Your task to perform on an android device: Open Chrome and go to the settings page Image 0: 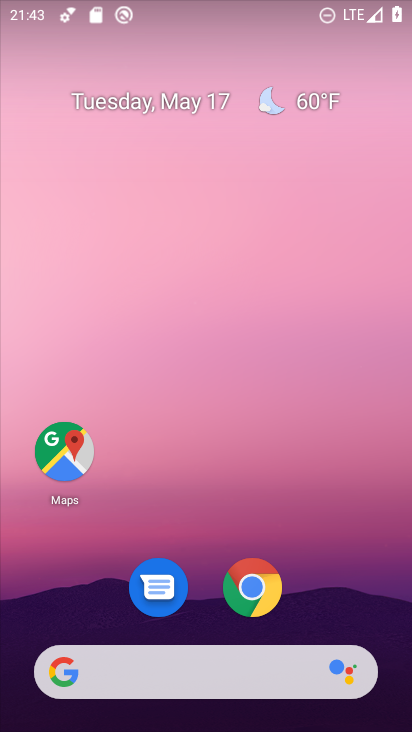
Step 0: drag from (246, 491) to (206, 122)
Your task to perform on an android device: Open Chrome and go to the settings page Image 1: 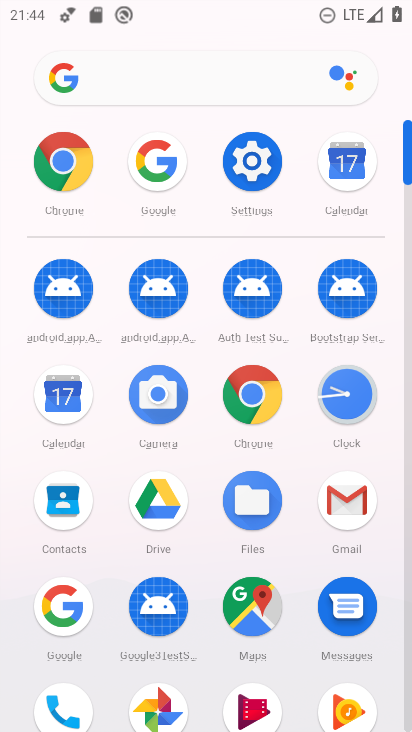
Step 1: click (263, 393)
Your task to perform on an android device: Open Chrome and go to the settings page Image 2: 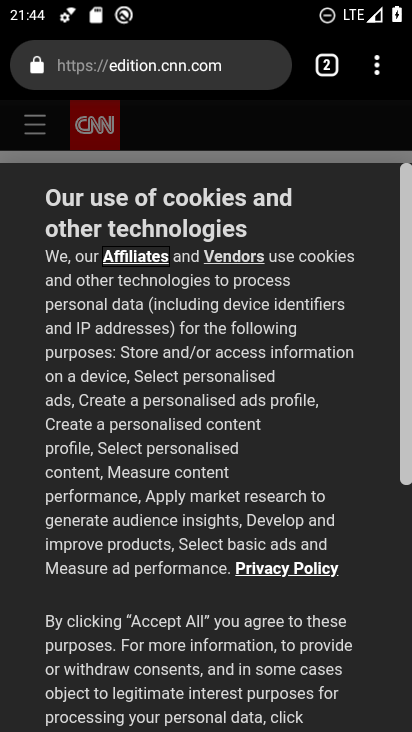
Step 2: click (379, 67)
Your task to perform on an android device: Open Chrome and go to the settings page Image 3: 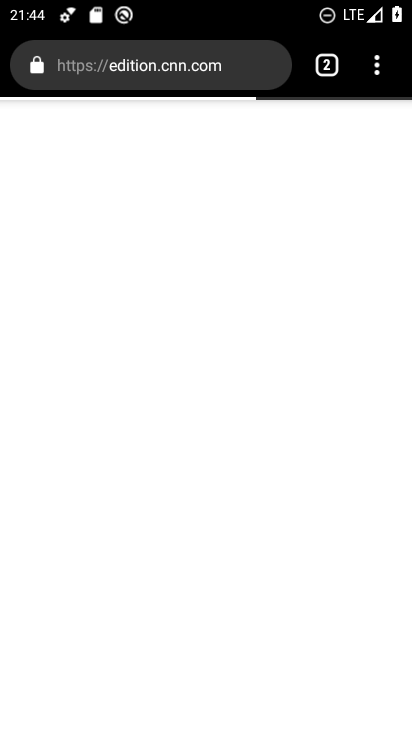
Step 3: click (371, 73)
Your task to perform on an android device: Open Chrome and go to the settings page Image 4: 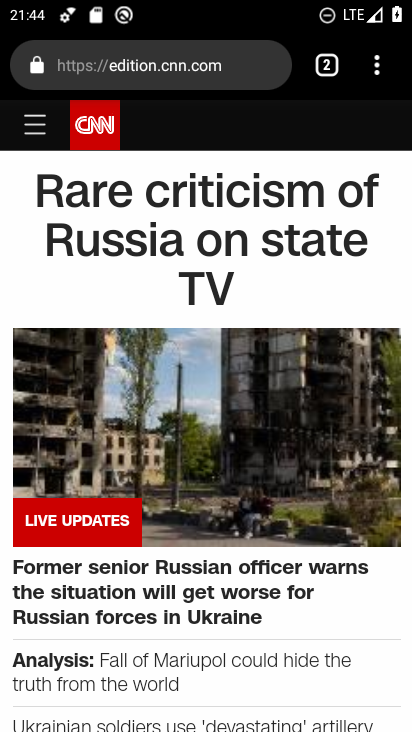
Step 4: click (377, 74)
Your task to perform on an android device: Open Chrome and go to the settings page Image 5: 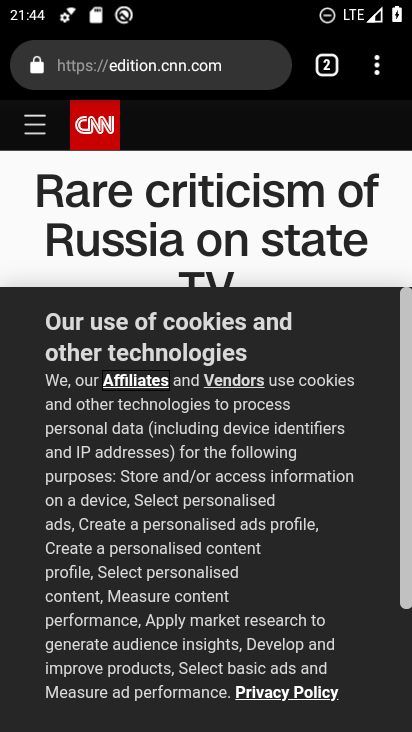
Step 5: click (379, 80)
Your task to perform on an android device: Open Chrome and go to the settings page Image 6: 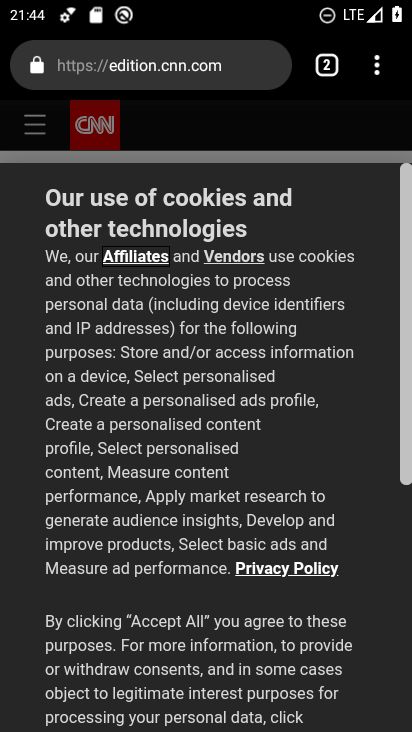
Step 6: click (373, 66)
Your task to perform on an android device: Open Chrome and go to the settings page Image 7: 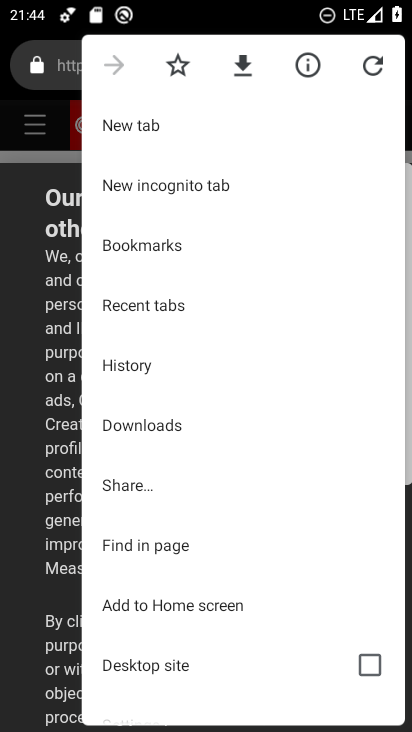
Step 7: drag from (164, 500) to (129, 275)
Your task to perform on an android device: Open Chrome and go to the settings page Image 8: 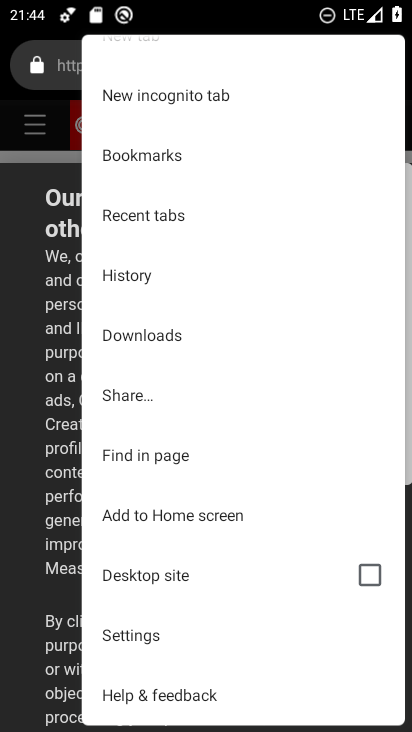
Step 8: click (171, 644)
Your task to perform on an android device: Open Chrome and go to the settings page Image 9: 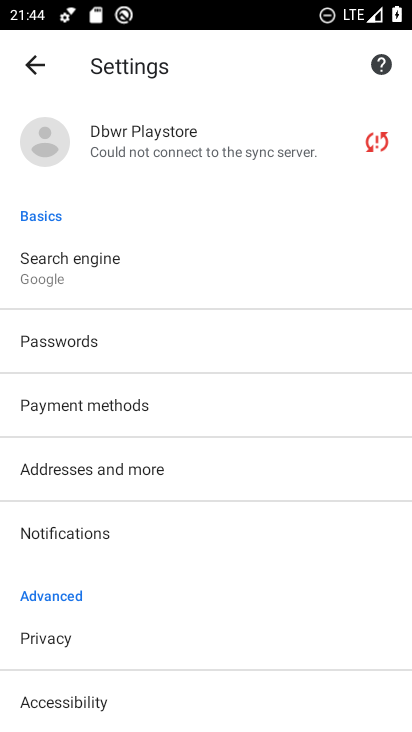
Step 9: task complete